Your task to perform on an android device: choose inbox layout in the gmail app Image 0: 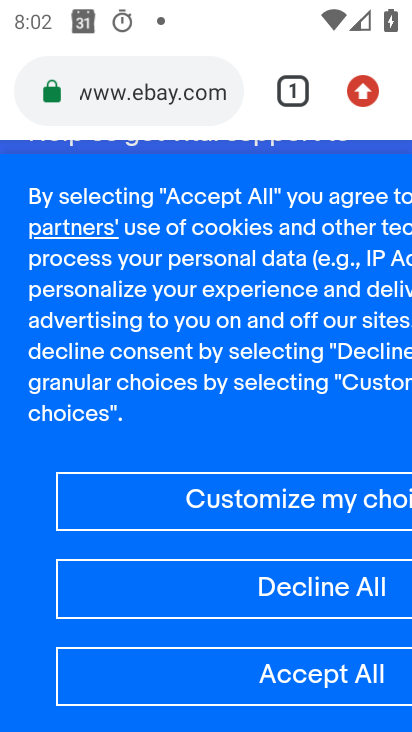
Step 0: click (305, 251)
Your task to perform on an android device: choose inbox layout in the gmail app Image 1: 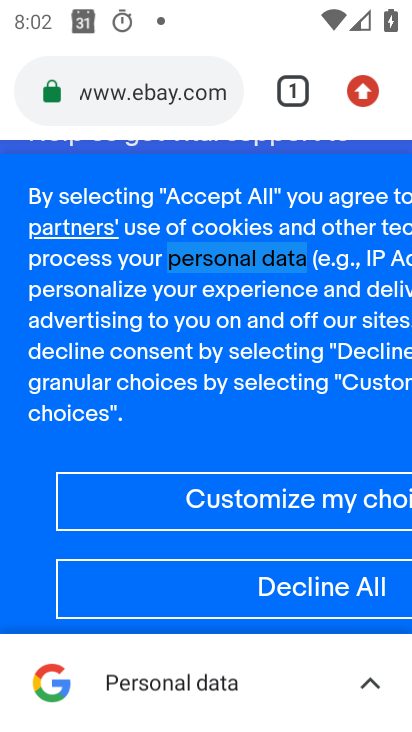
Step 1: drag from (250, 549) to (266, 260)
Your task to perform on an android device: choose inbox layout in the gmail app Image 2: 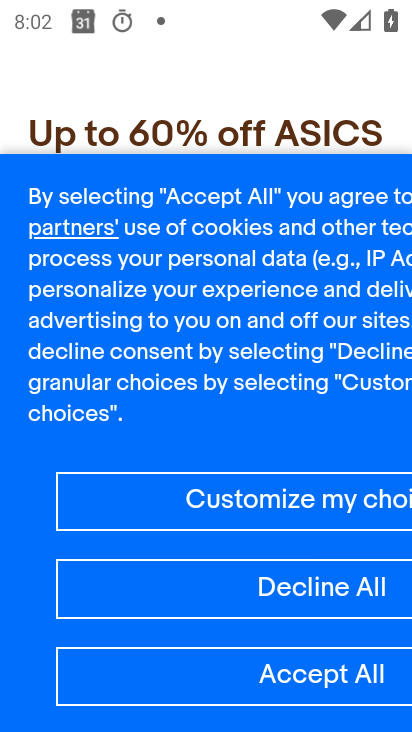
Step 2: drag from (272, 217) to (391, 665)
Your task to perform on an android device: choose inbox layout in the gmail app Image 3: 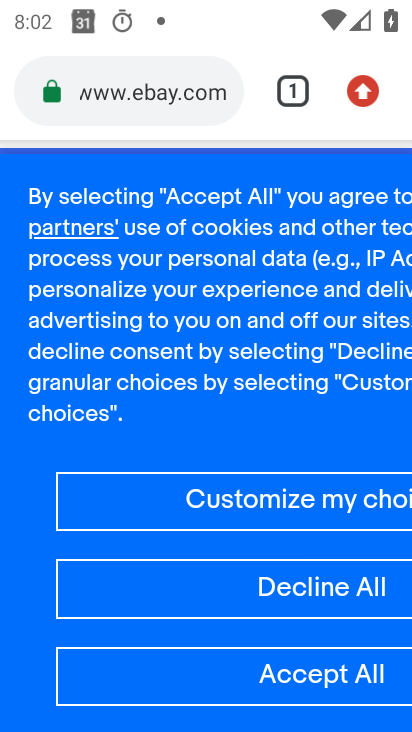
Step 3: press home button
Your task to perform on an android device: choose inbox layout in the gmail app Image 4: 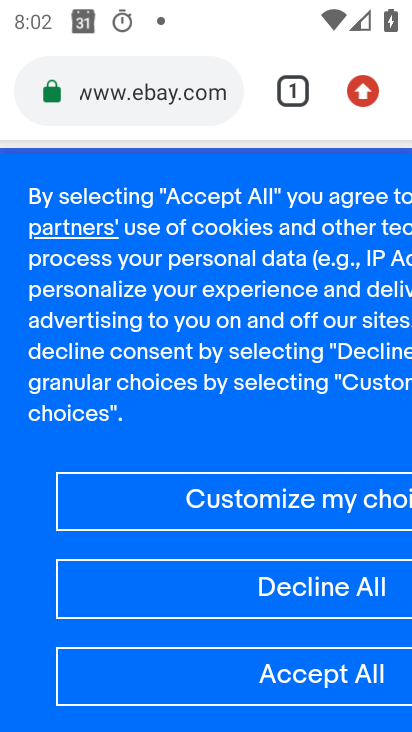
Step 4: drag from (391, 665) to (398, 516)
Your task to perform on an android device: choose inbox layout in the gmail app Image 5: 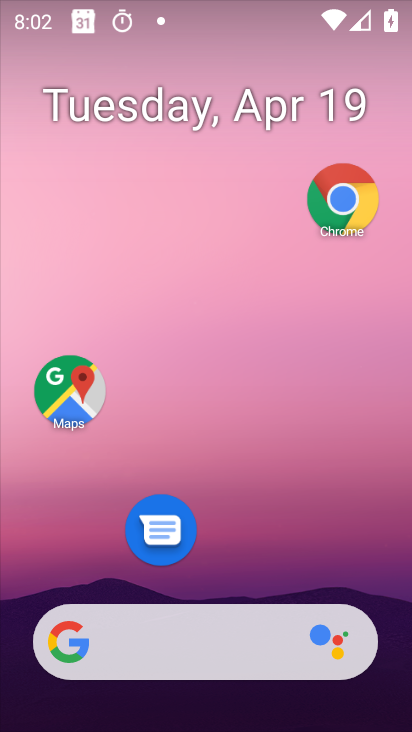
Step 5: drag from (241, 568) to (341, 74)
Your task to perform on an android device: choose inbox layout in the gmail app Image 6: 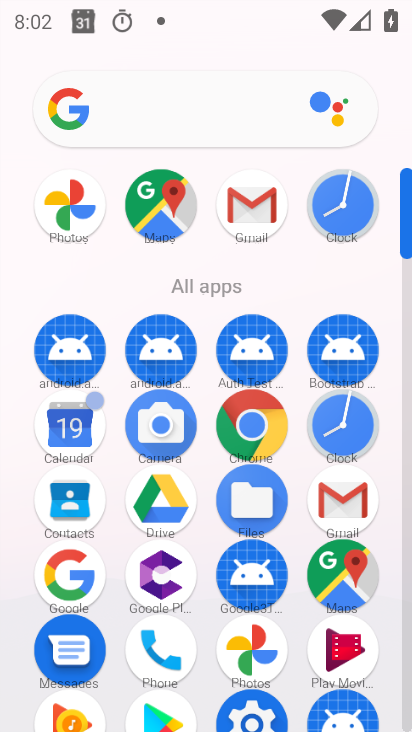
Step 6: click (353, 499)
Your task to perform on an android device: choose inbox layout in the gmail app Image 7: 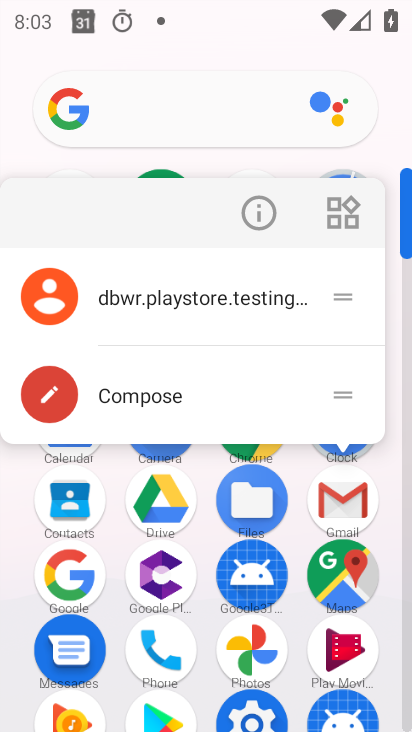
Step 7: click (257, 204)
Your task to perform on an android device: choose inbox layout in the gmail app Image 8: 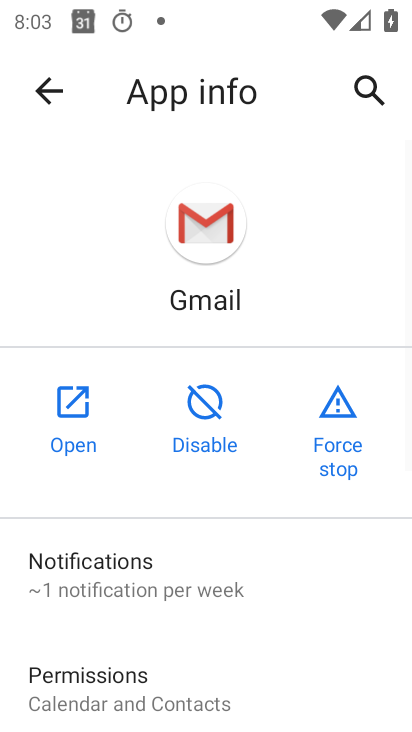
Step 8: click (62, 418)
Your task to perform on an android device: choose inbox layout in the gmail app Image 9: 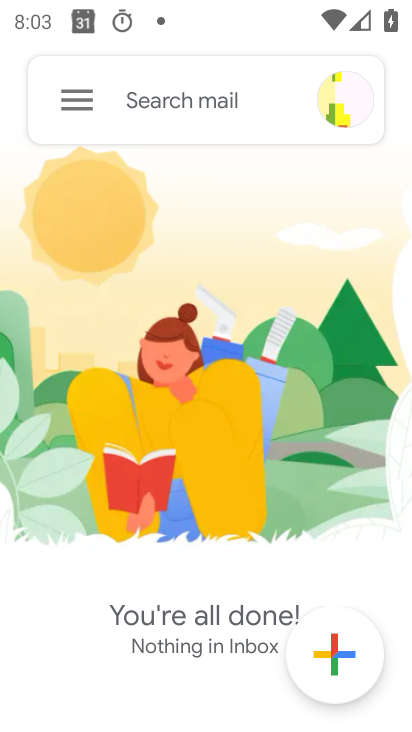
Step 9: click (73, 91)
Your task to perform on an android device: choose inbox layout in the gmail app Image 10: 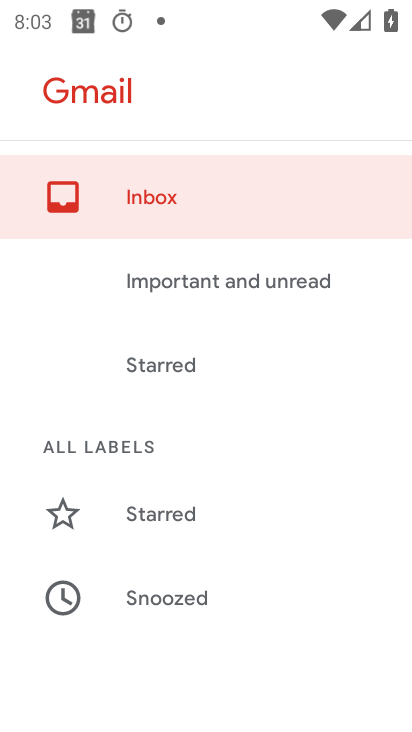
Step 10: drag from (195, 528) to (350, 723)
Your task to perform on an android device: choose inbox layout in the gmail app Image 11: 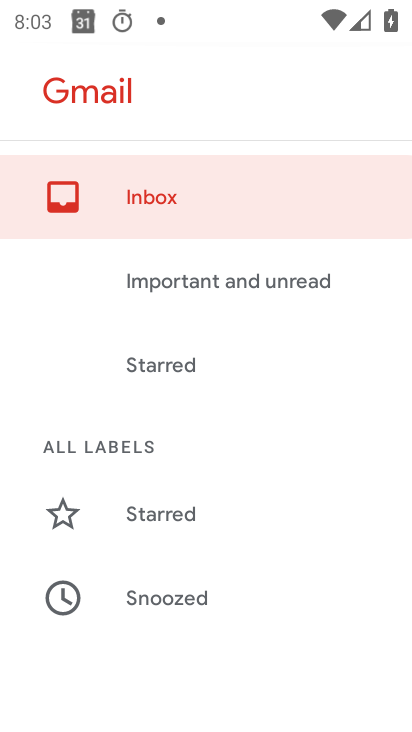
Step 11: click (181, 153)
Your task to perform on an android device: choose inbox layout in the gmail app Image 12: 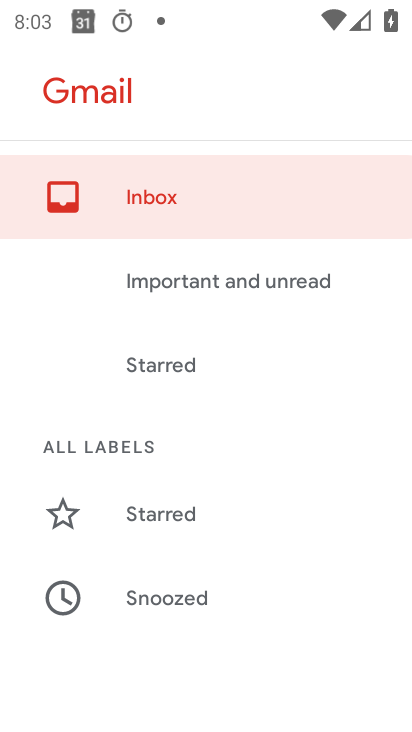
Step 12: click (154, 201)
Your task to perform on an android device: choose inbox layout in the gmail app Image 13: 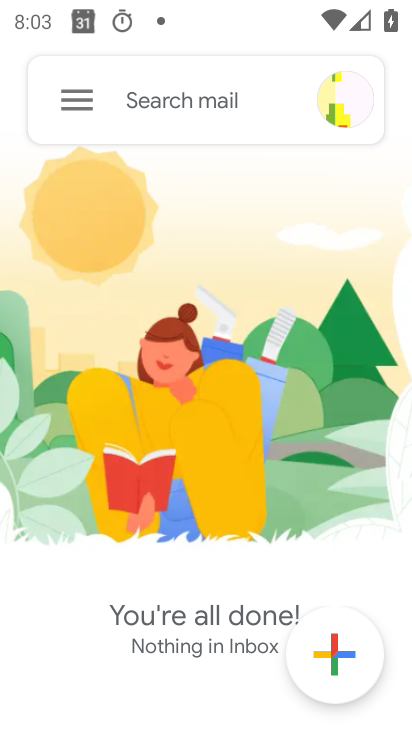
Step 13: task complete